Your task to perform on an android device: Go to notification settings Image 0: 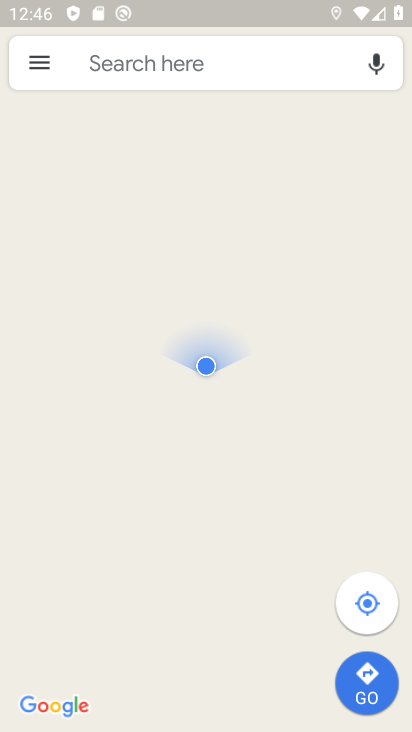
Step 0: press back button
Your task to perform on an android device: Go to notification settings Image 1: 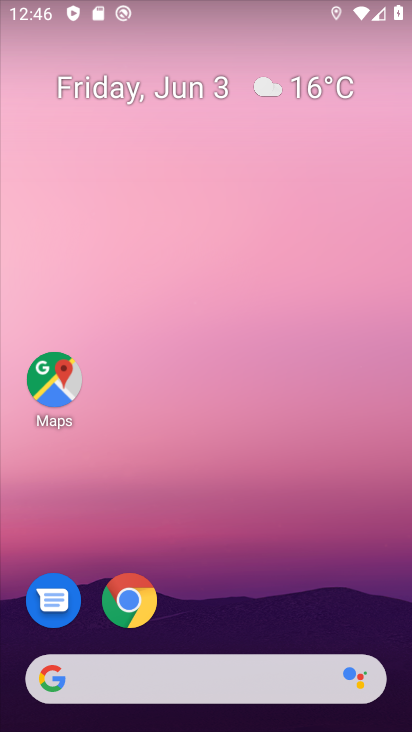
Step 1: drag from (237, 600) to (212, 60)
Your task to perform on an android device: Go to notification settings Image 2: 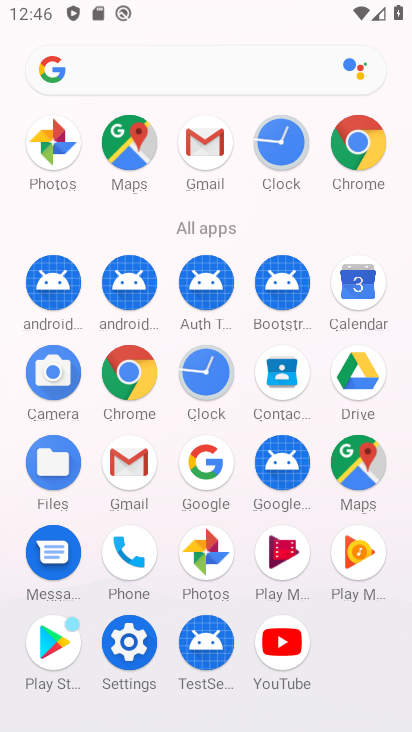
Step 2: click (129, 642)
Your task to perform on an android device: Go to notification settings Image 3: 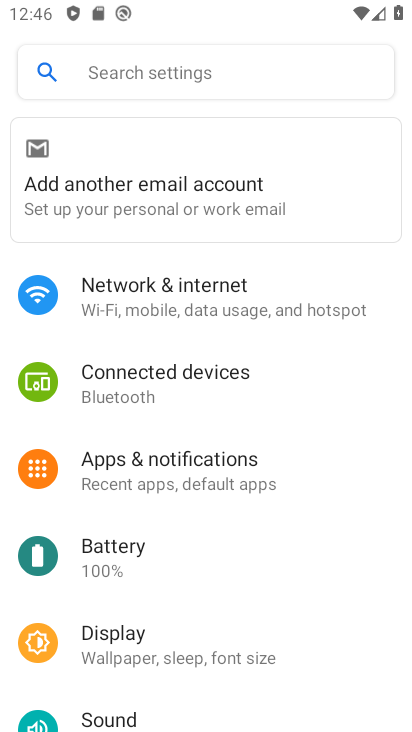
Step 3: click (199, 470)
Your task to perform on an android device: Go to notification settings Image 4: 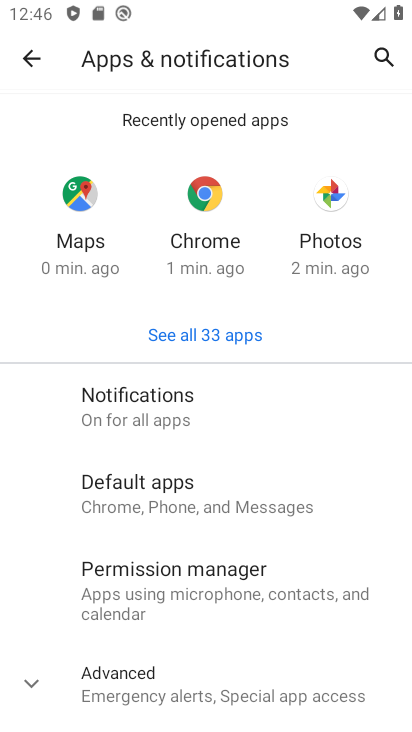
Step 4: click (185, 391)
Your task to perform on an android device: Go to notification settings Image 5: 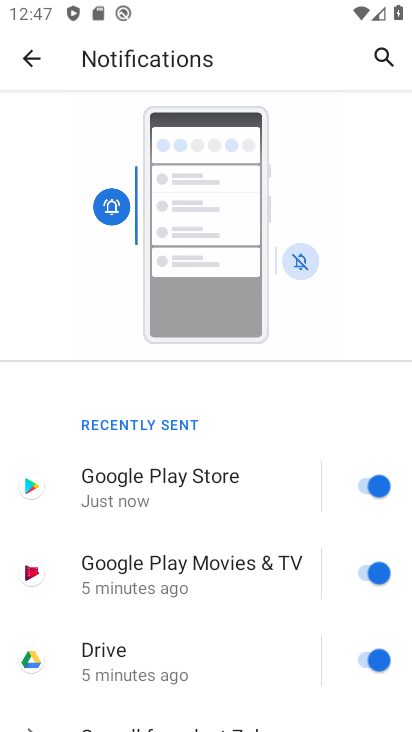
Step 5: task complete